Your task to perform on an android device: Show me popular games on the Play Store Image 0: 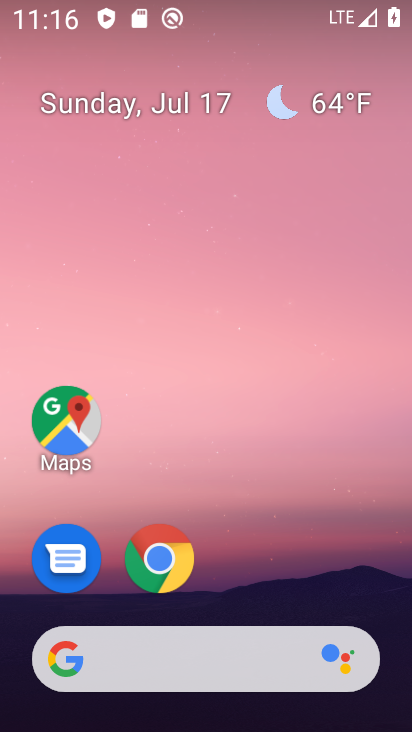
Step 0: drag from (328, 581) to (365, 61)
Your task to perform on an android device: Show me popular games on the Play Store Image 1: 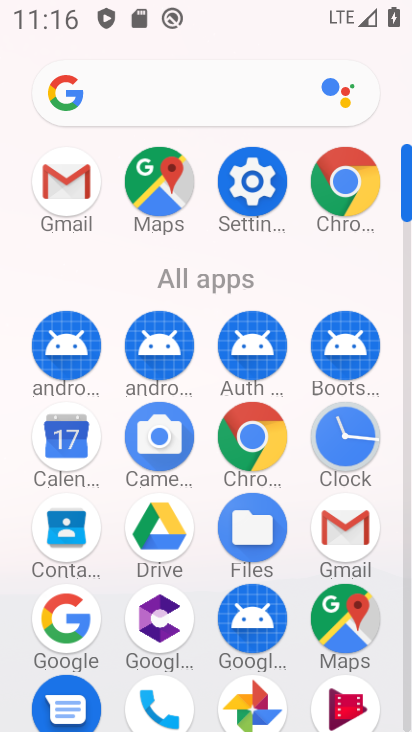
Step 1: drag from (383, 511) to (396, 228)
Your task to perform on an android device: Show me popular games on the Play Store Image 2: 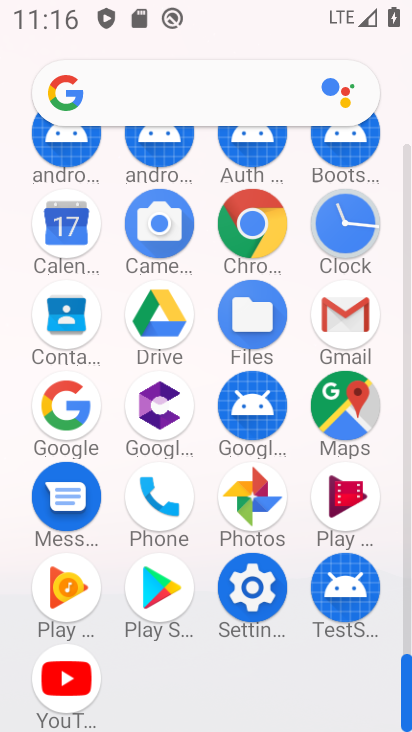
Step 2: click (163, 591)
Your task to perform on an android device: Show me popular games on the Play Store Image 3: 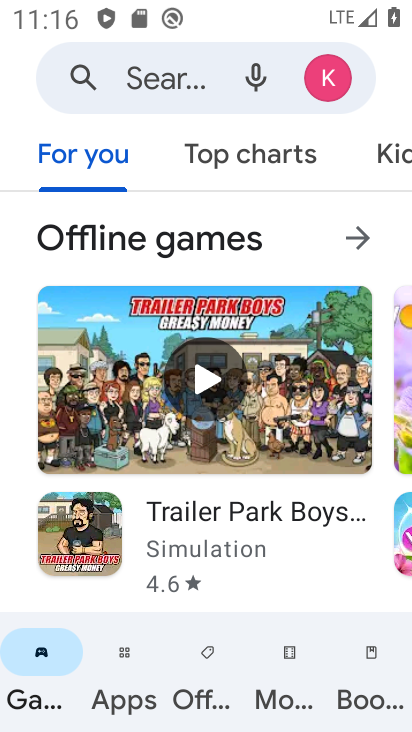
Step 3: task complete